Your task to perform on an android device: change timer sound Image 0: 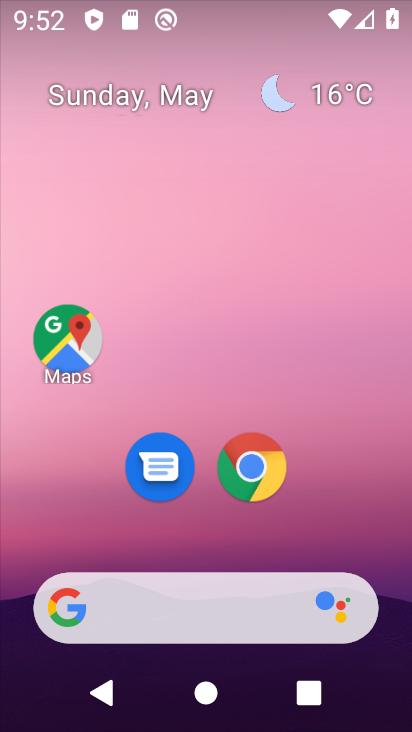
Step 0: drag from (312, 490) to (353, 87)
Your task to perform on an android device: change timer sound Image 1: 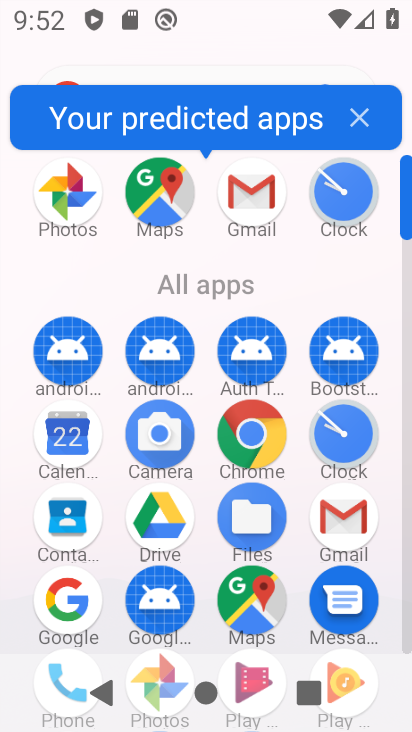
Step 1: click (355, 429)
Your task to perform on an android device: change timer sound Image 2: 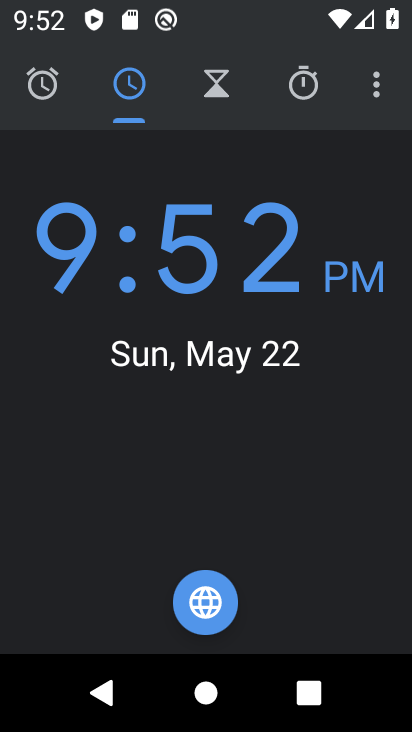
Step 2: click (373, 99)
Your task to perform on an android device: change timer sound Image 3: 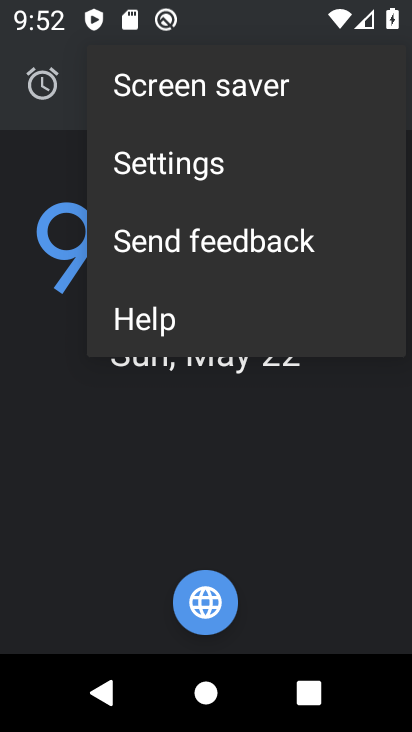
Step 3: click (272, 162)
Your task to perform on an android device: change timer sound Image 4: 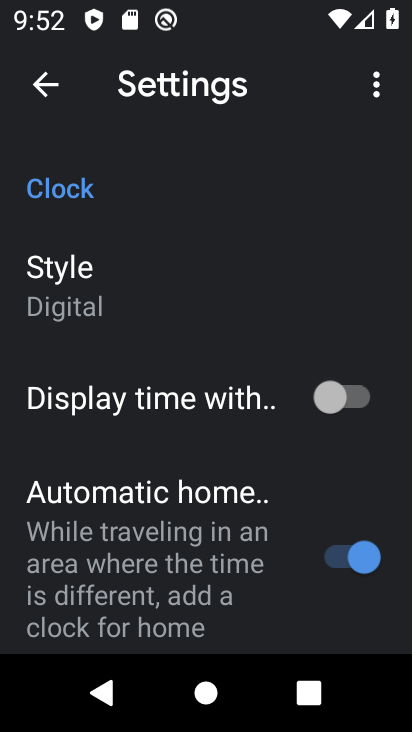
Step 4: drag from (210, 513) to (252, 246)
Your task to perform on an android device: change timer sound Image 5: 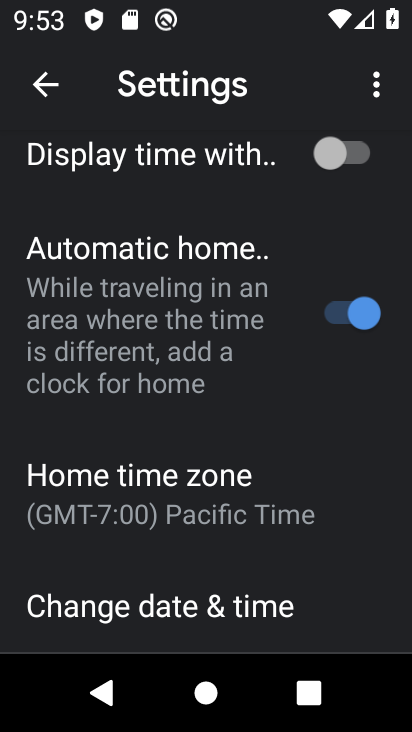
Step 5: drag from (308, 588) to (309, 171)
Your task to perform on an android device: change timer sound Image 6: 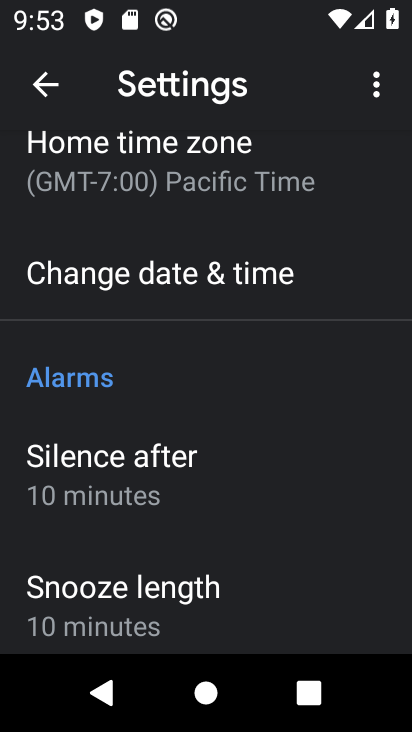
Step 6: drag from (251, 551) to (247, 211)
Your task to perform on an android device: change timer sound Image 7: 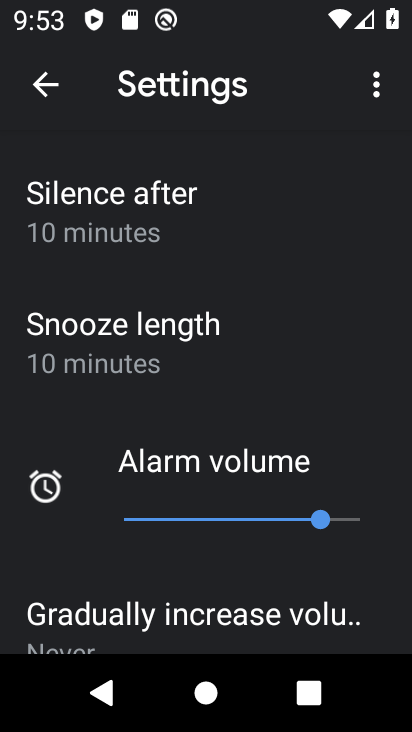
Step 7: drag from (262, 556) to (250, 270)
Your task to perform on an android device: change timer sound Image 8: 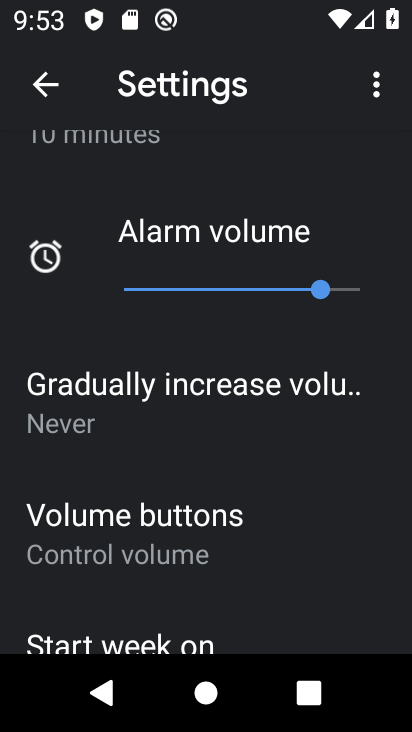
Step 8: drag from (288, 537) to (323, 225)
Your task to perform on an android device: change timer sound Image 9: 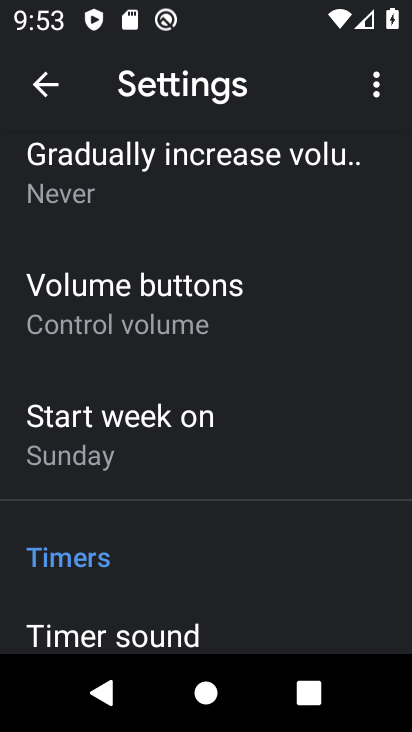
Step 9: drag from (257, 536) to (286, 256)
Your task to perform on an android device: change timer sound Image 10: 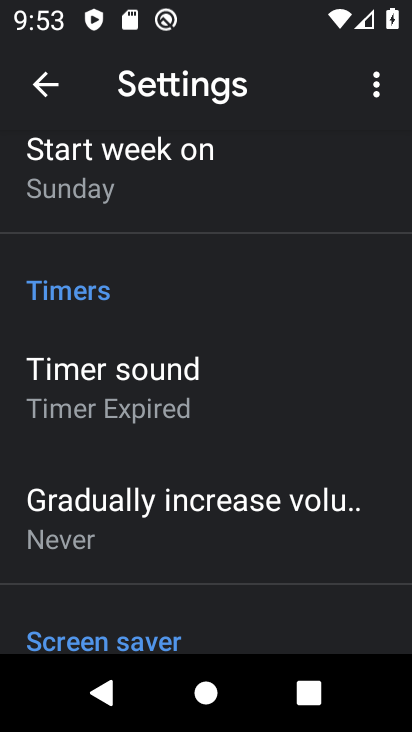
Step 10: click (228, 383)
Your task to perform on an android device: change timer sound Image 11: 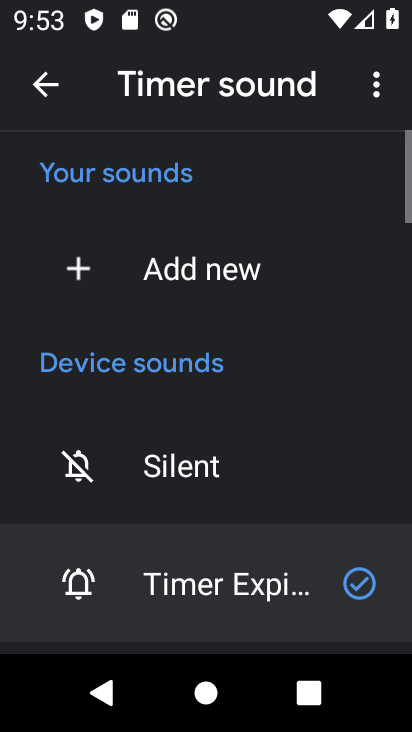
Step 11: drag from (211, 576) to (272, 228)
Your task to perform on an android device: change timer sound Image 12: 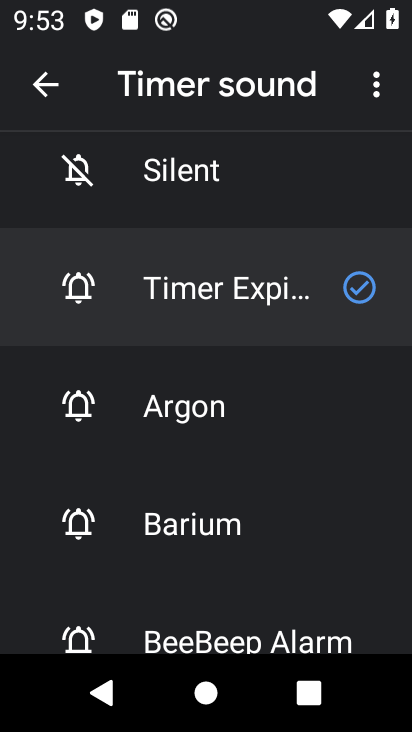
Step 12: click (220, 418)
Your task to perform on an android device: change timer sound Image 13: 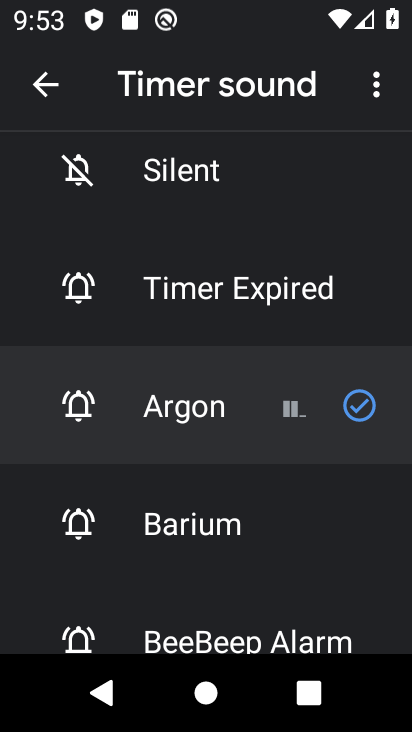
Step 13: task complete